Your task to perform on an android device: Add acer nitro to the cart on newegg.com, then select checkout. Image 0: 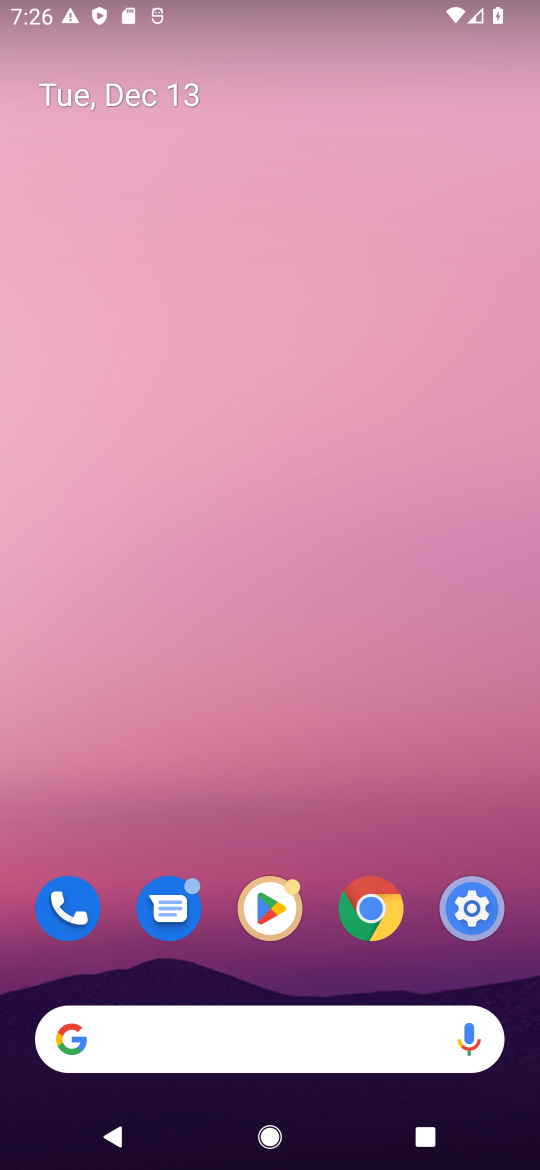
Step 0: press home button
Your task to perform on an android device: Add acer nitro to the cart on newegg.com, then select checkout. Image 1: 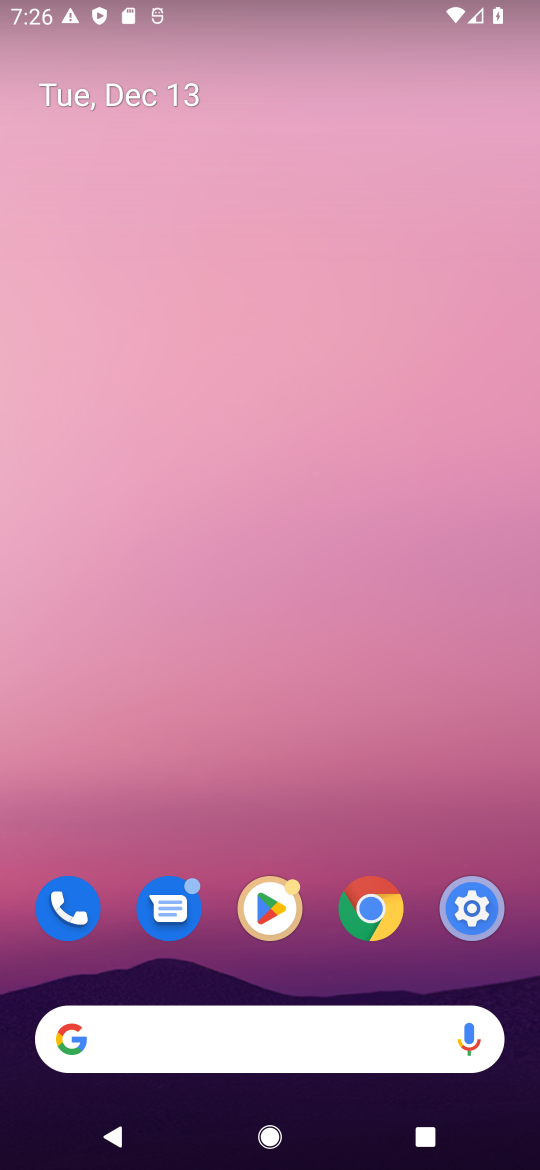
Step 1: click (114, 1044)
Your task to perform on an android device: Add acer nitro to the cart on newegg.com, then select checkout. Image 2: 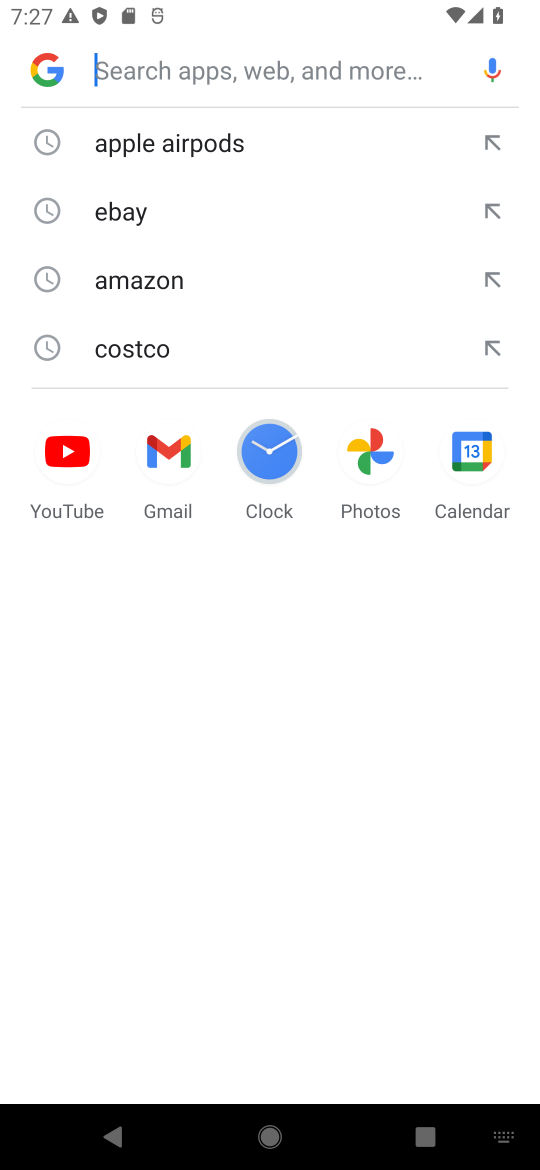
Step 2: type "newegg.com"
Your task to perform on an android device: Add acer nitro to the cart on newegg.com, then select checkout. Image 3: 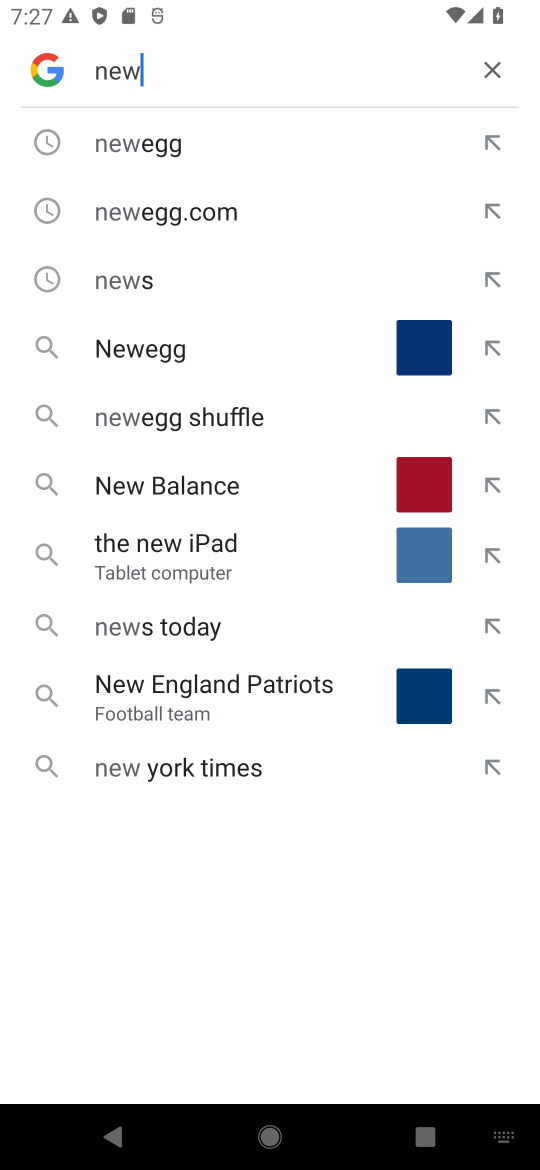
Step 3: press enter
Your task to perform on an android device: Add acer nitro to the cart on newegg.com, then select checkout. Image 4: 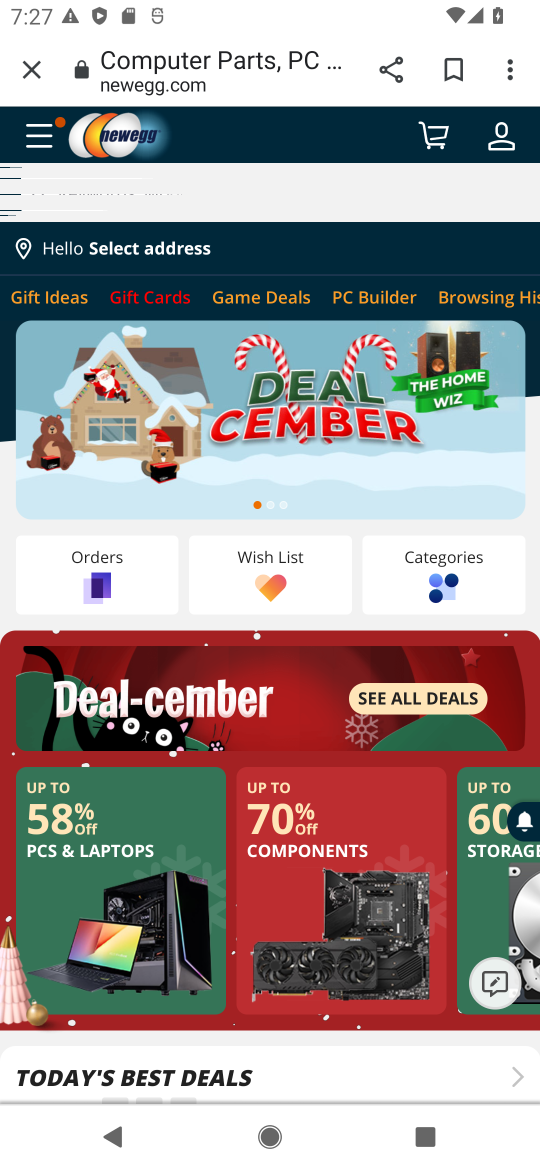
Step 4: click (142, 187)
Your task to perform on an android device: Add acer nitro to the cart on newegg.com, then select checkout. Image 5: 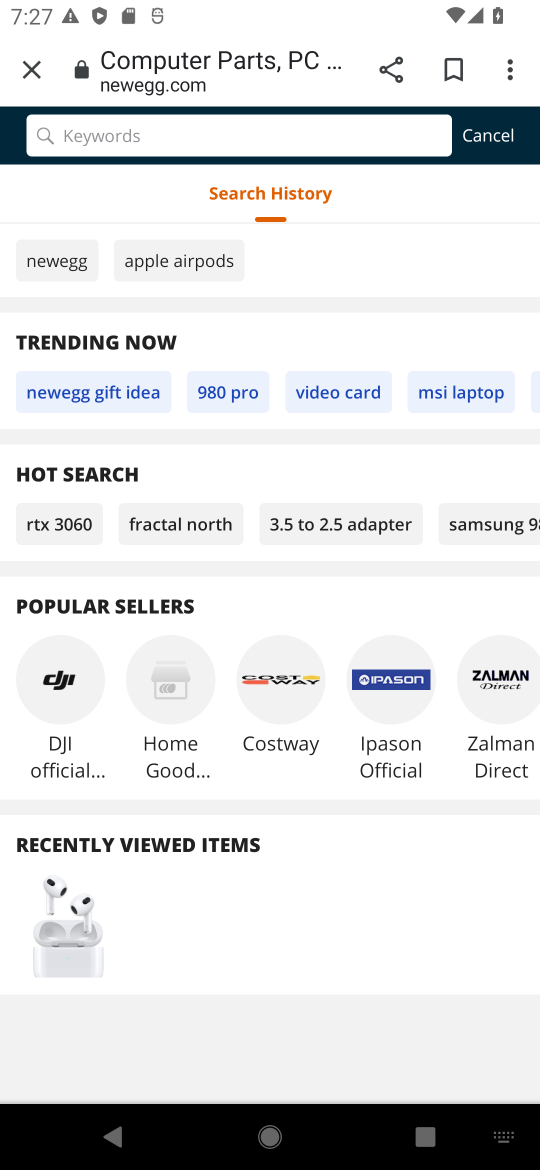
Step 5: type " acer nitro"
Your task to perform on an android device: Add acer nitro to the cart on newegg.com, then select checkout. Image 6: 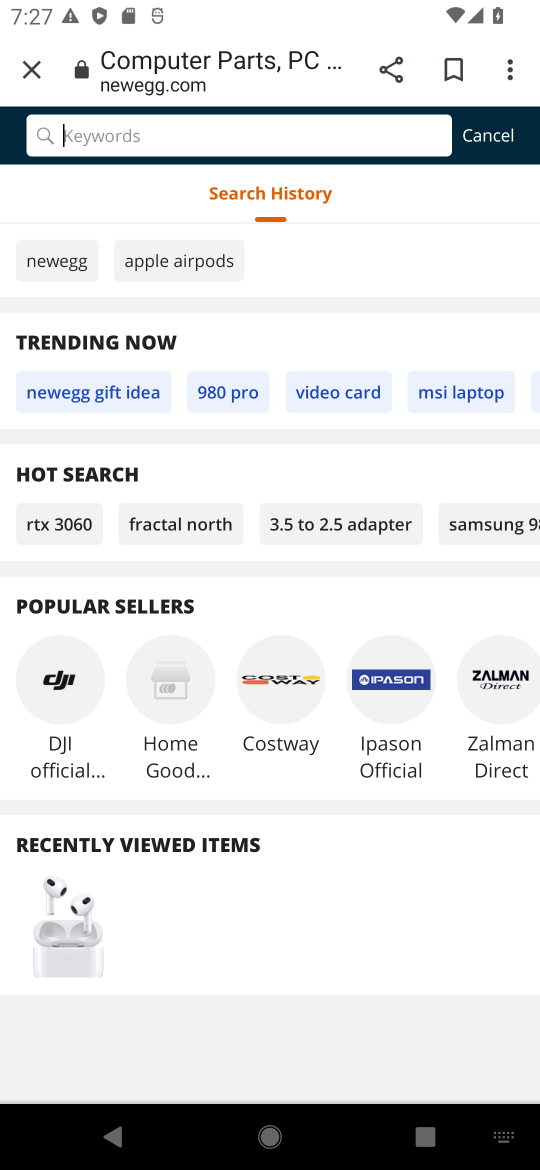
Step 6: press enter
Your task to perform on an android device: Add acer nitro to the cart on newegg.com, then select checkout. Image 7: 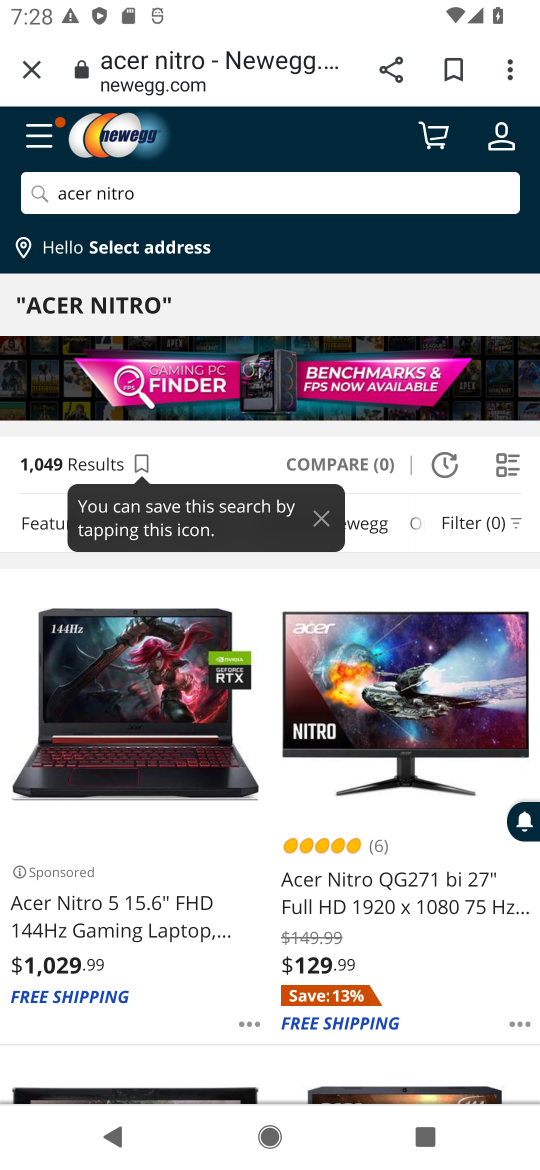
Step 7: drag from (174, 992) to (247, 617)
Your task to perform on an android device: Add acer nitro to the cart on newegg.com, then select checkout. Image 8: 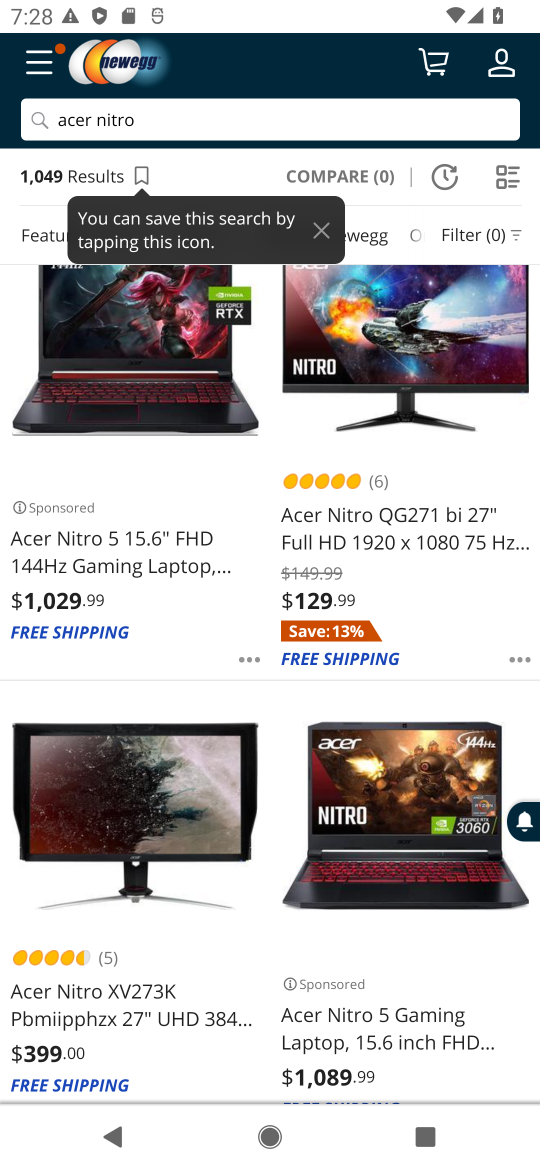
Step 8: click (63, 540)
Your task to perform on an android device: Add acer nitro to the cart on newegg.com, then select checkout. Image 9: 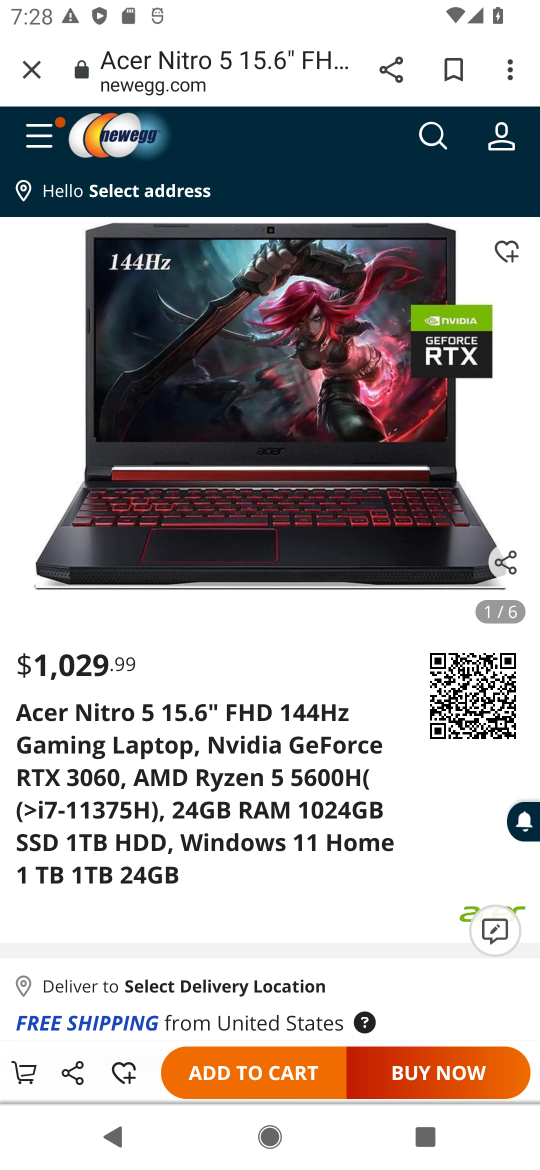
Step 9: drag from (274, 860) to (326, 323)
Your task to perform on an android device: Add acer nitro to the cart on newegg.com, then select checkout. Image 10: 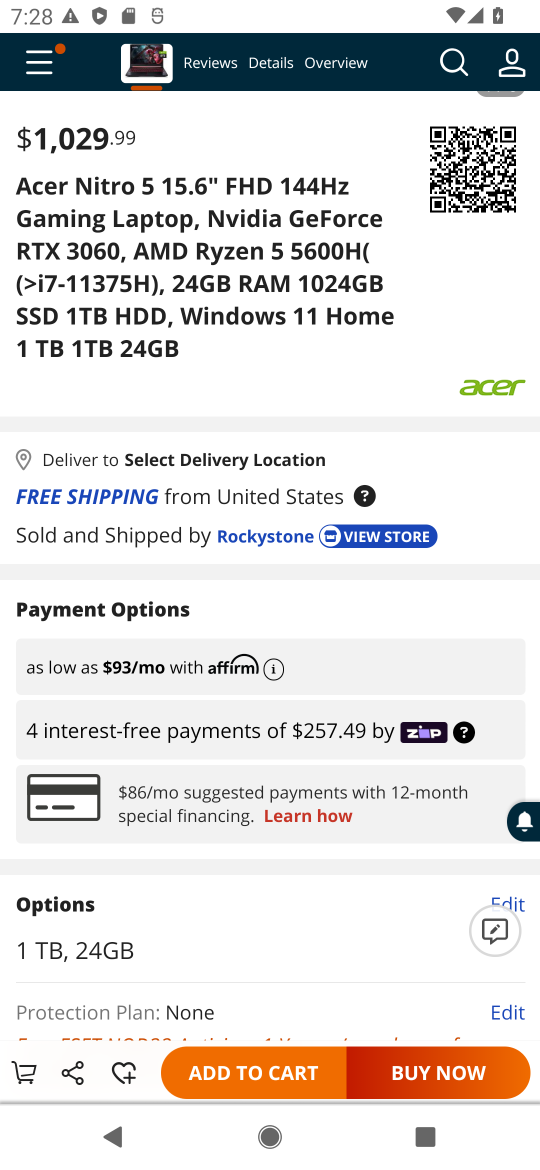
Step 10: click (246, 1073)
Your task to perform on an android device: Add acer nitro to the cart on newegg.com, then select checkout. Image 11: 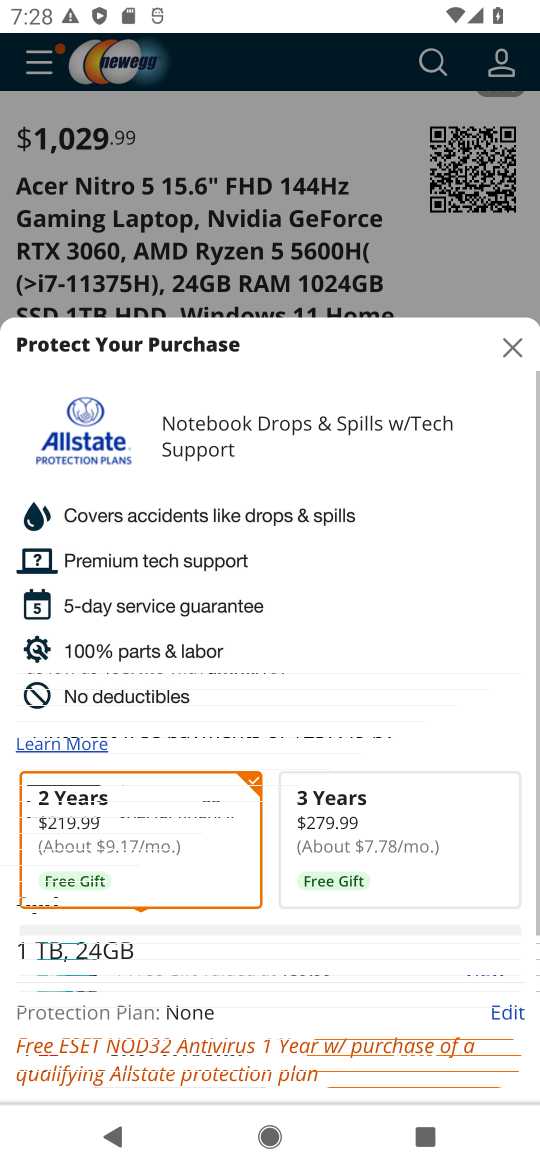
Step 11: task complete